Your task to perform on an android device: Show me recent news Image 0: 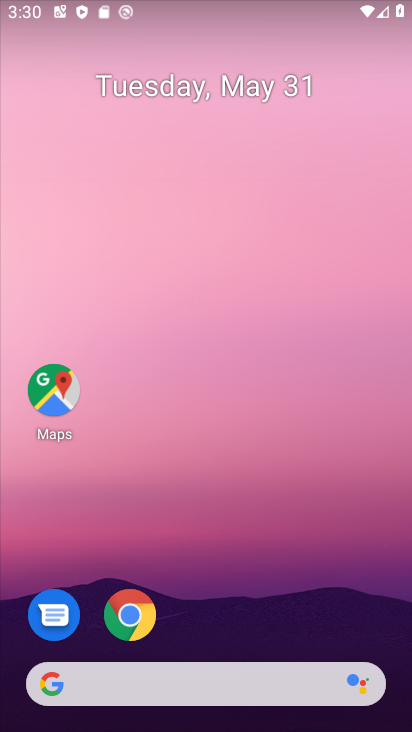
Step 0: drag from (292, 712) to (194, 98)
Your task to perform on an android device: Show me recent news Image 1: 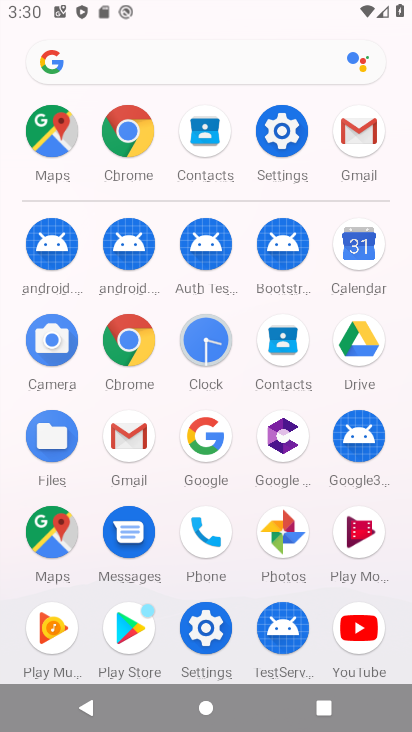
Step 1: task complete